Your task to perform on an android device: check storage Image 0: 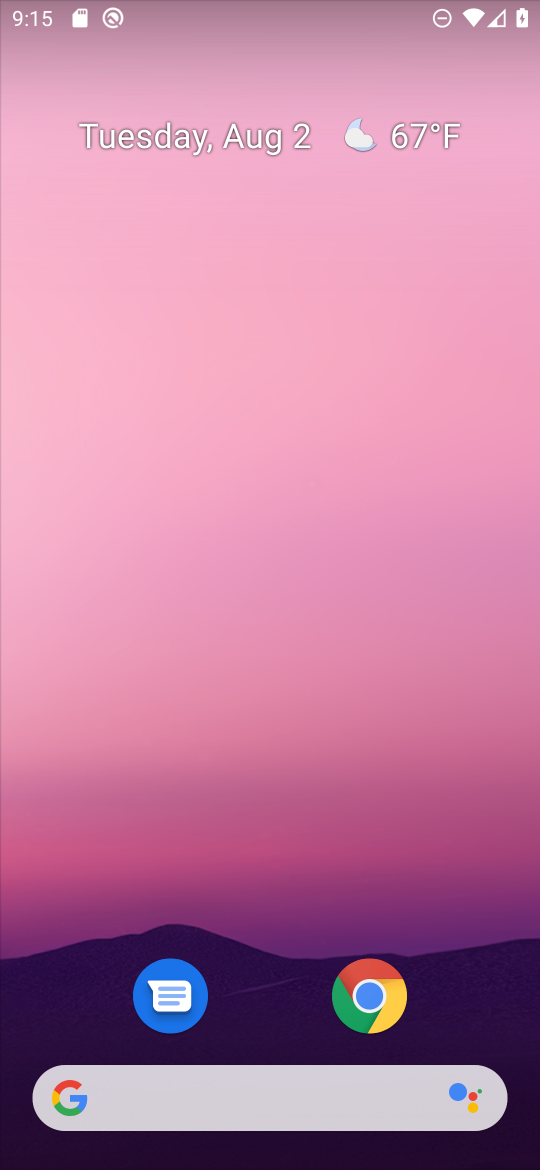
Step 0: drag from (291, 1023) to (315, 11)
Your task to perform on an android device: check storage Image 1: 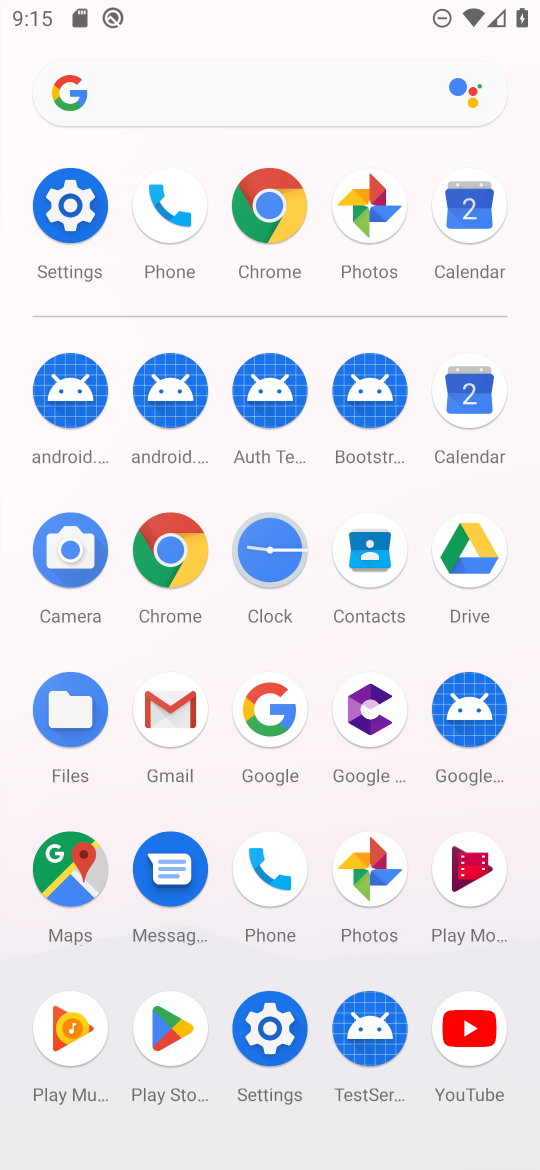
Step 1: click (283, 1015)
Your task to perform on an android device: check storage Image 2: 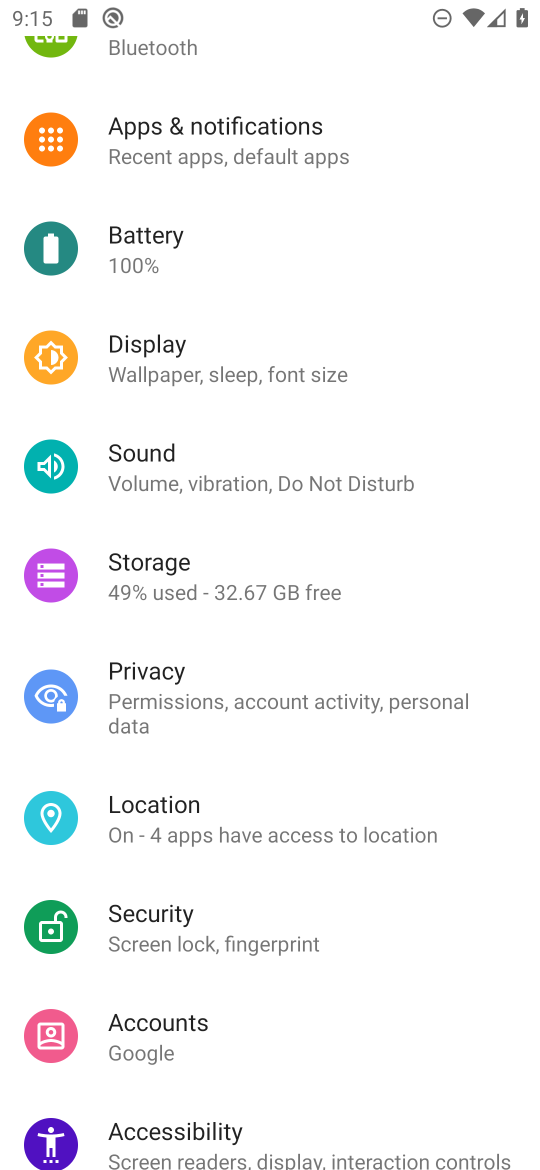
Step 2: drag from (279, 1001) to (208, 295)
Your task to perform on an android device: check storage Image 3: 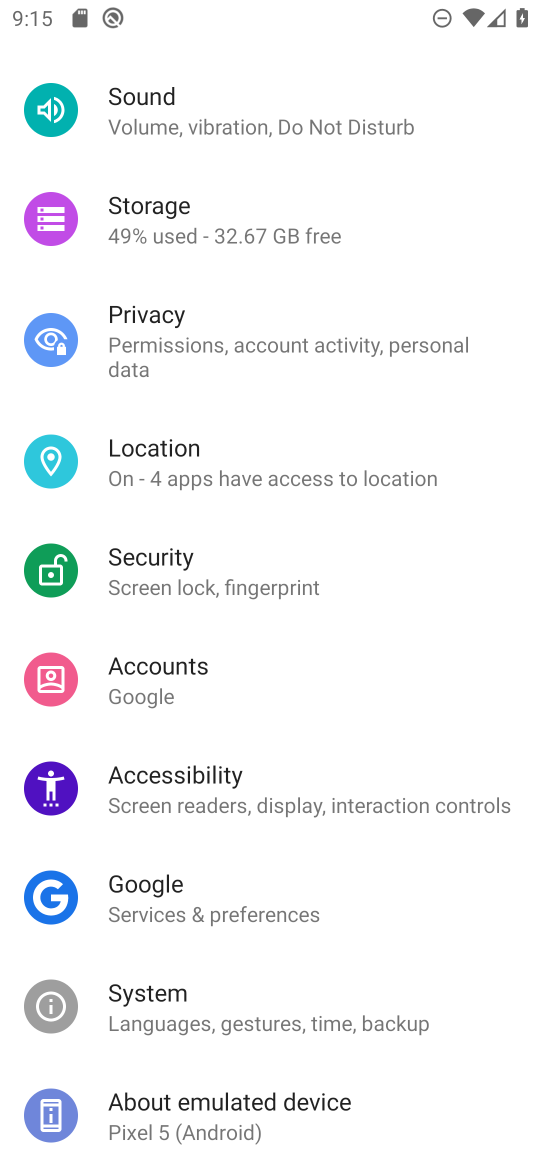
Step 3: click (178, 225)
Your task to perform on an android device: check storage Image 4: 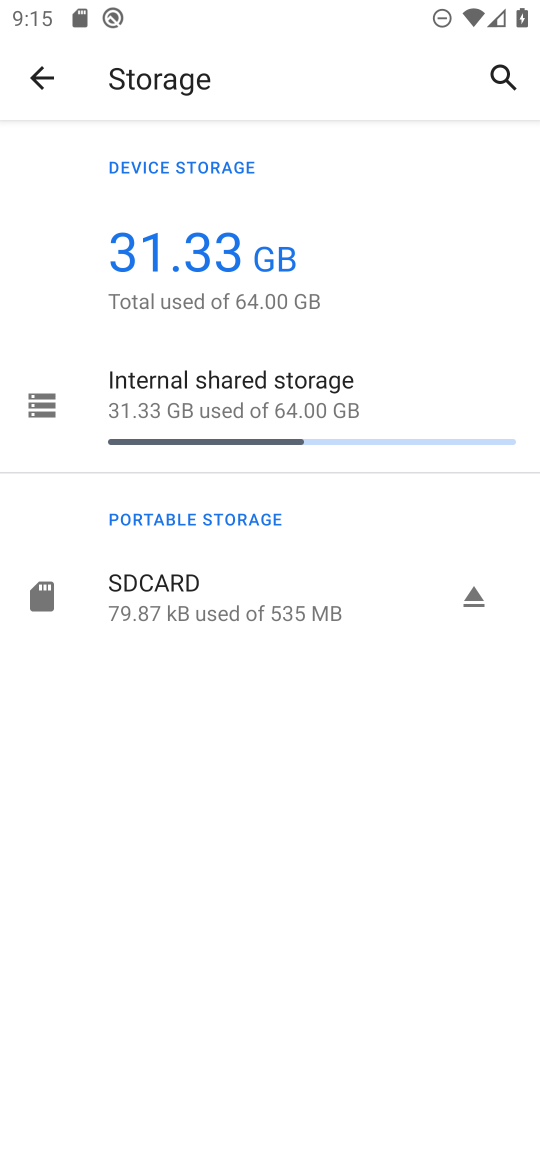
Step 4: task complete